Your task to perform on an android device: Check the weather Image 0: 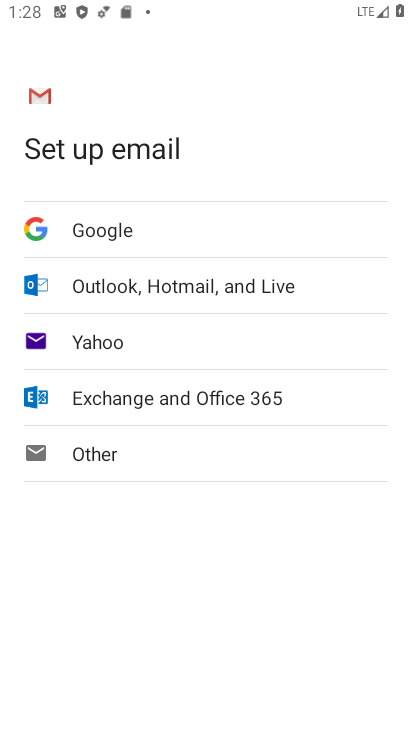
Step 0: press home button
Your task to perform on an android device: Check the weather Image 1: 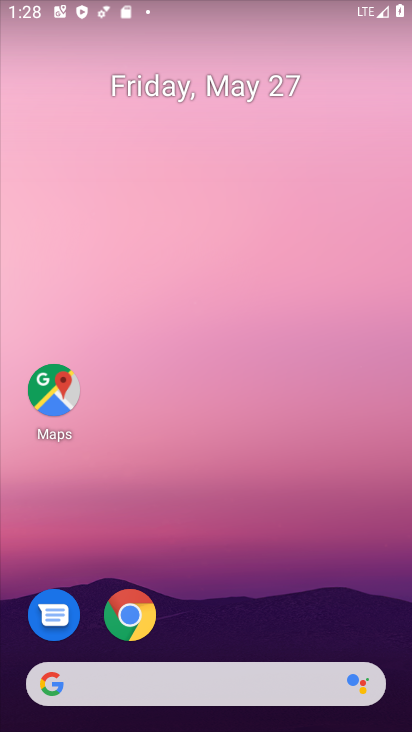
Step 1: drag from (197, 615) to (309, 222)
Your task to perform on an android device: Check the weather Image 2: 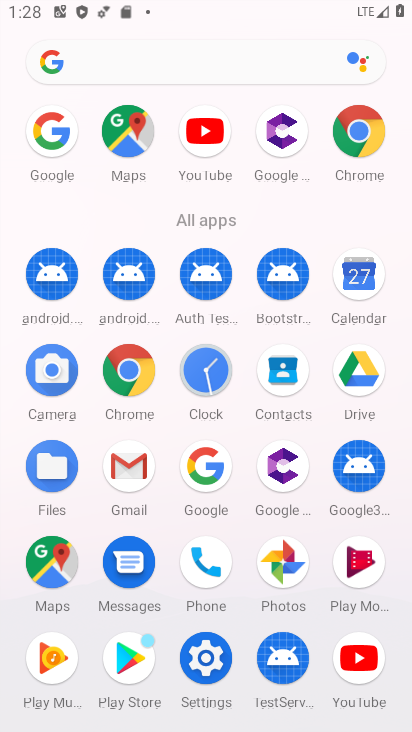
Step 2: click (210, 467)
Your task to perform on an android device: Check the weather Image 3: 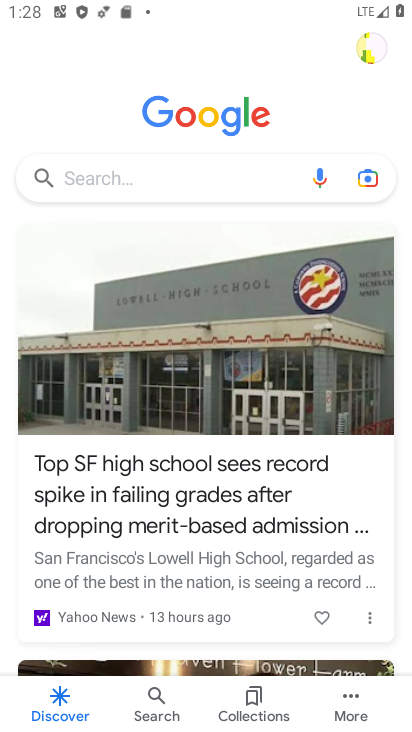
Step 3: click (200, 160)
Your task to perform on an android device: Check the weather Image 4: 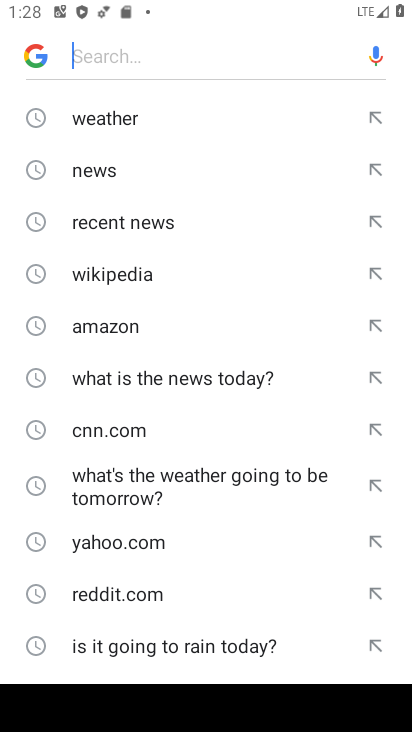
Step 4: click (97, 108)
Your task to perform on an android device: Check the weather Image 5: 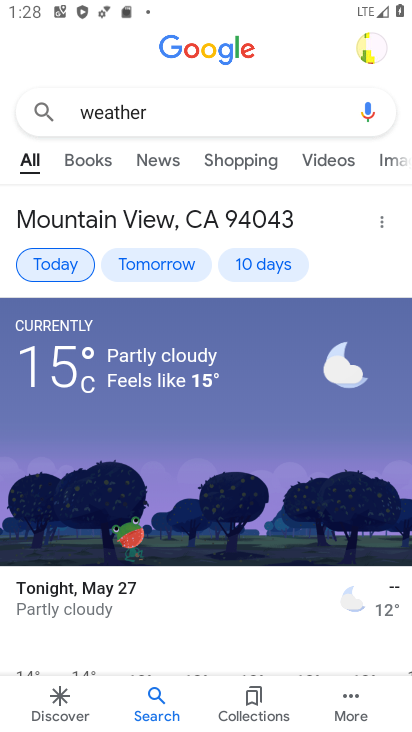
Step 5: task complete